Your task to perform on an android device: When is my next appointment? Image 0: 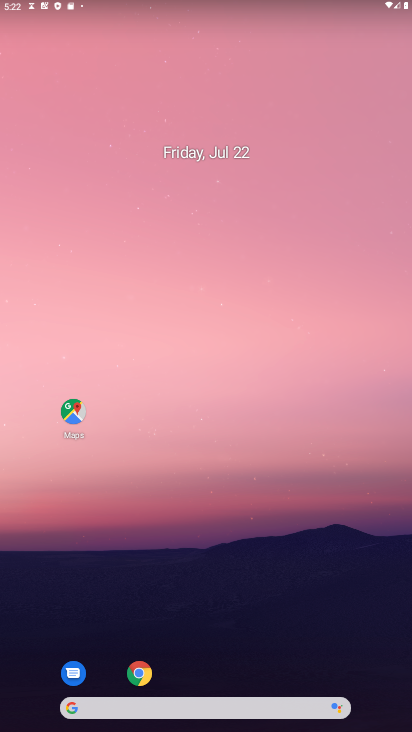
Step 0: press home button
Your task to perform on an android device: When is my next appointment? Image 1: 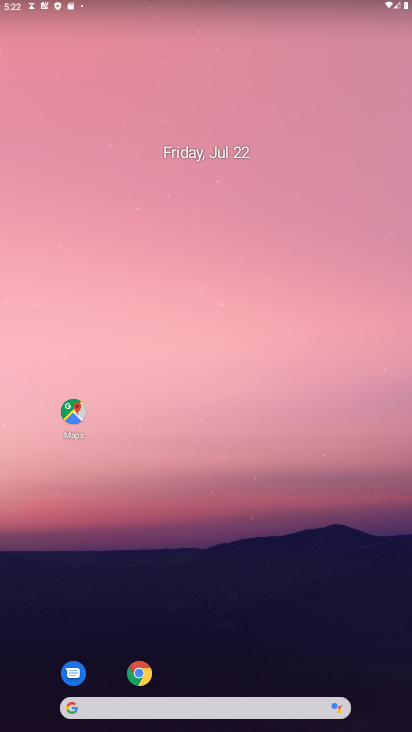
Step 1: drag from (197, 654) to (275, 227)
Your task to perform on an android device: When is my next appointment? Image 2: 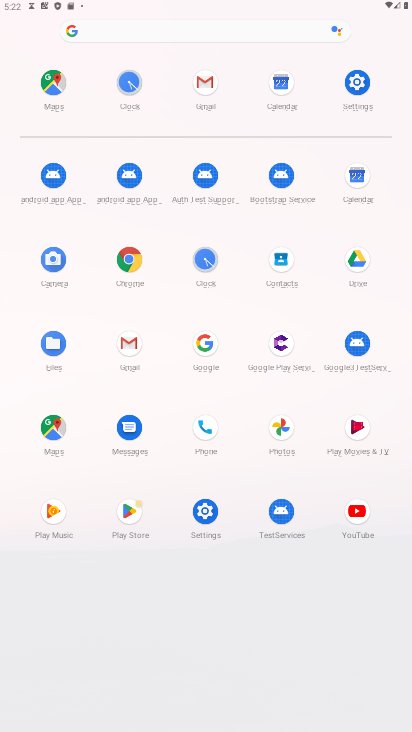
Step 2: click (365, 184)
Your task to perform on an android device: When is my next appointment? Image 3: 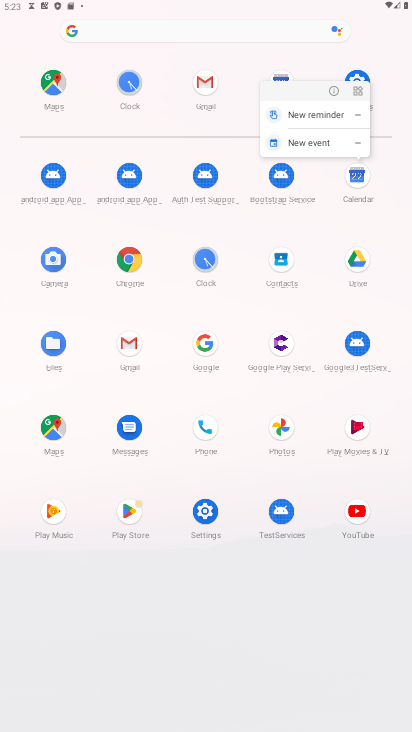
Step 3: click (357, 184)
Your task to perform on an android device: When is my next appointment? Image 4: 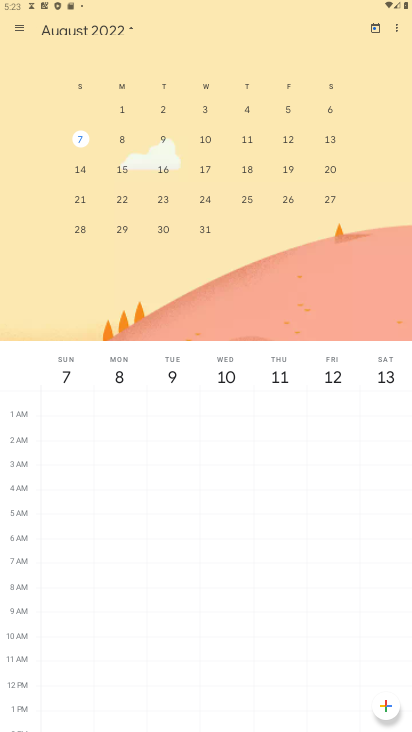
Step 4: click (13, 28)
Your task to perform on an android device: When is my next appointment? Image 5: 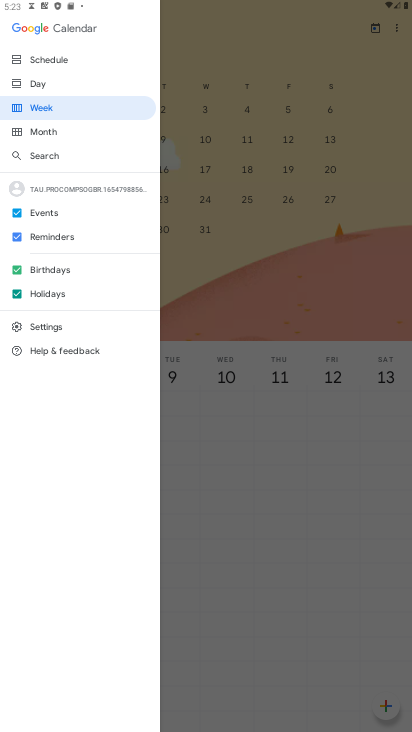
Step 5: click (51, 61)
Your task to perform on an android device: When is my next appointment? Image 6: 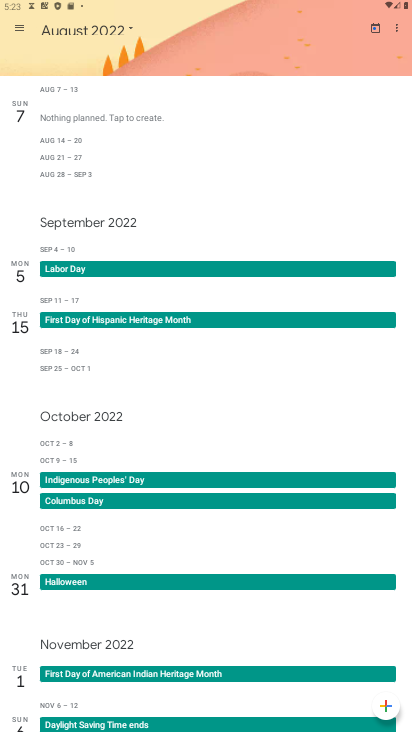
Step 6: task complete